Your task to perform on an android device: Go to network settings Image 0: 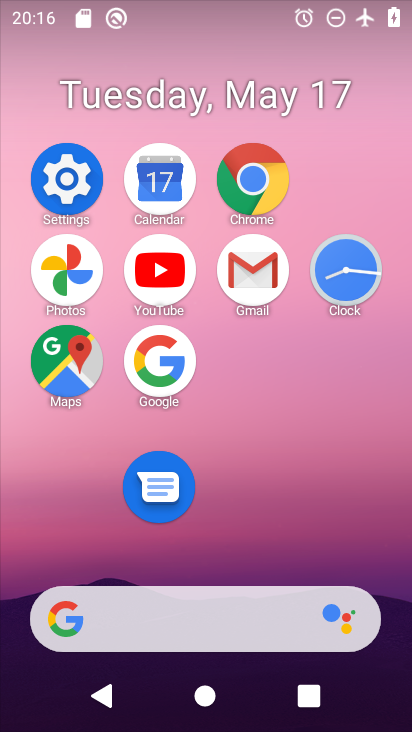
Step 0: click (71, 177)
Your task to perform on an android device: Go to network settings Image 1: 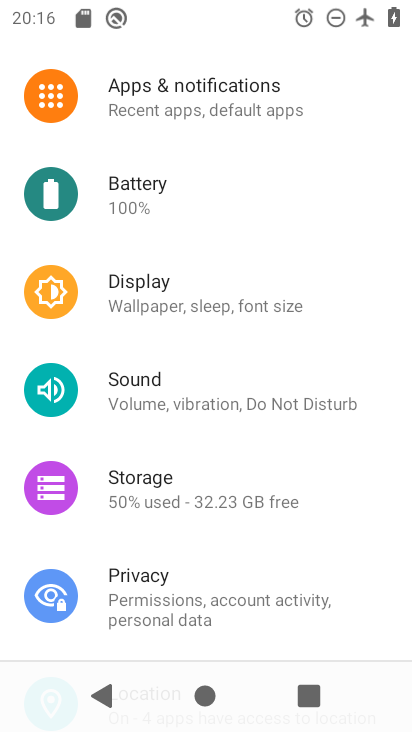
Step 1: drag from (294, 180) to (299, 516)
Your task to perform on an android device: Go to network settings Image 2: 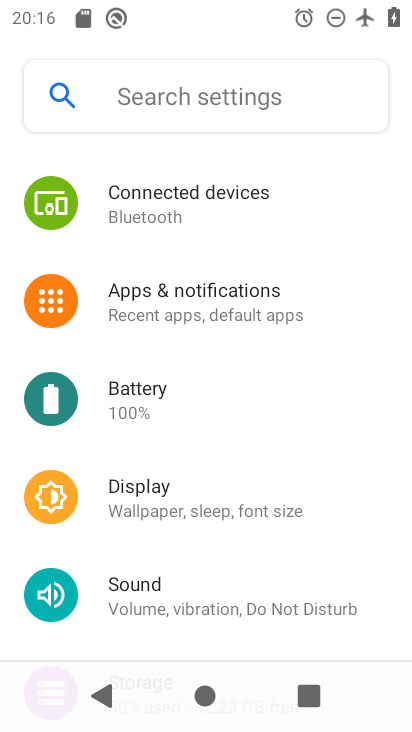
Step 2: drag from (263, 254) to (272, 560)
Your task to perform on an android device: Go to network settings Image 3: 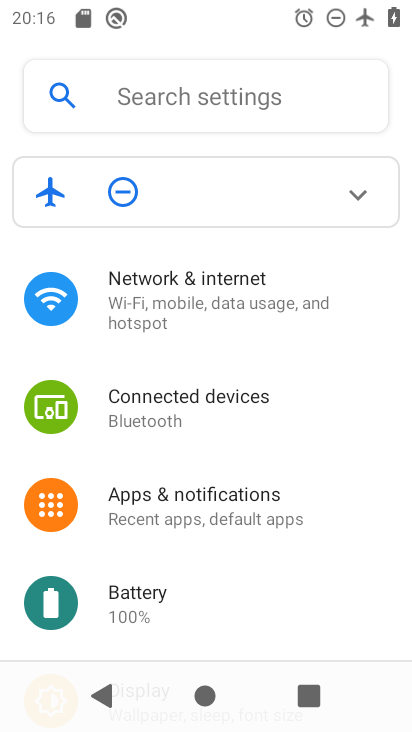
Step 3: click (241, 287)
Your task to perform on an android device: Go to network settings Image 4: 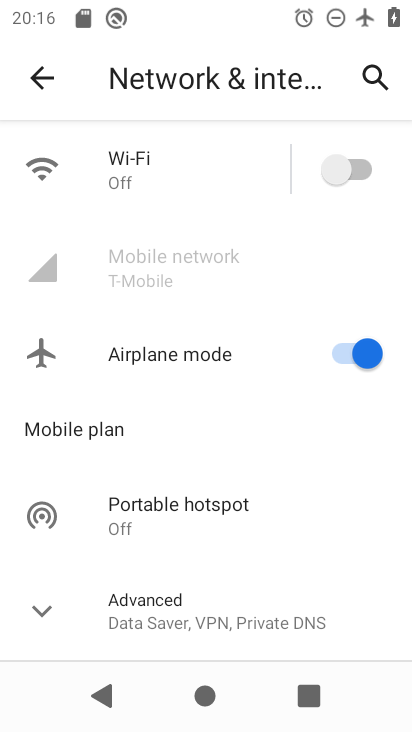
Step 4: task complete